Your task to perform on an android device: set the timer Image 0: 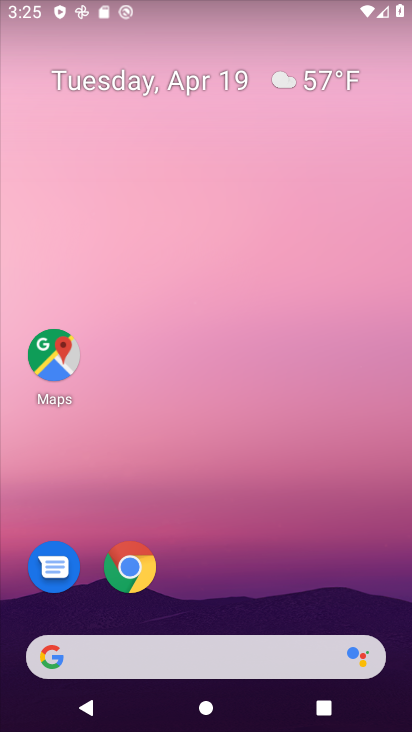
Step 0: drag from (381, 567) to (391, 151)
Your task to perform on an android device: set the timer Image 1: 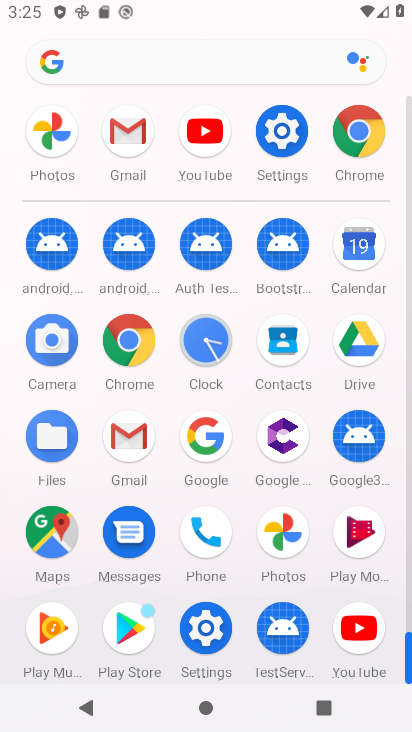
Step 1: click (204, 352)
Your task to perform on an android device: set the timer Image 2: 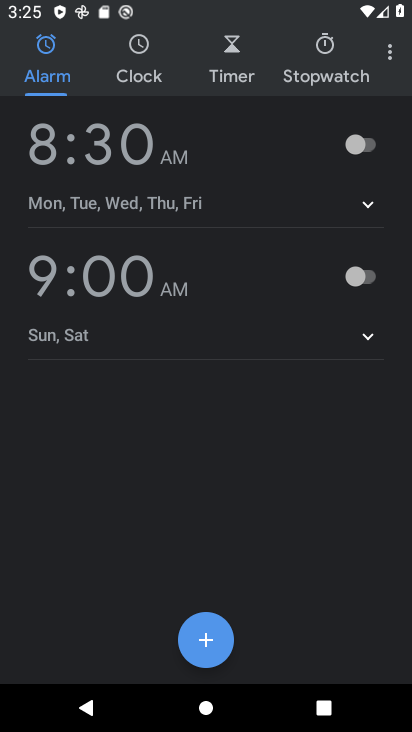
Step 2: click (224, 67)
Your task to perform on an android device: set the timer Image 3: 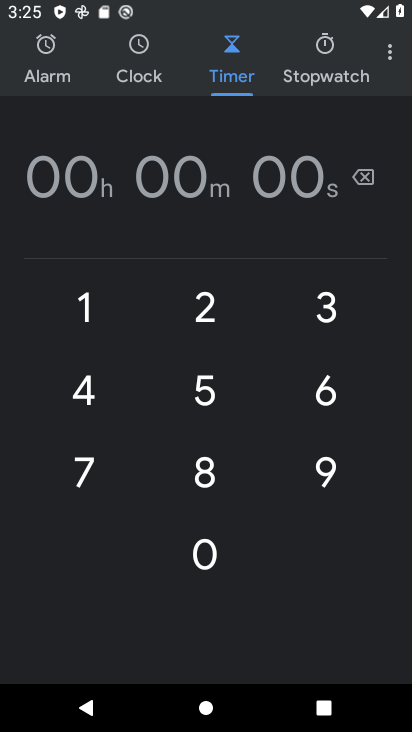
Step 3: click (197, 385)
Your task to perform on an android device: set the timer Image 4: 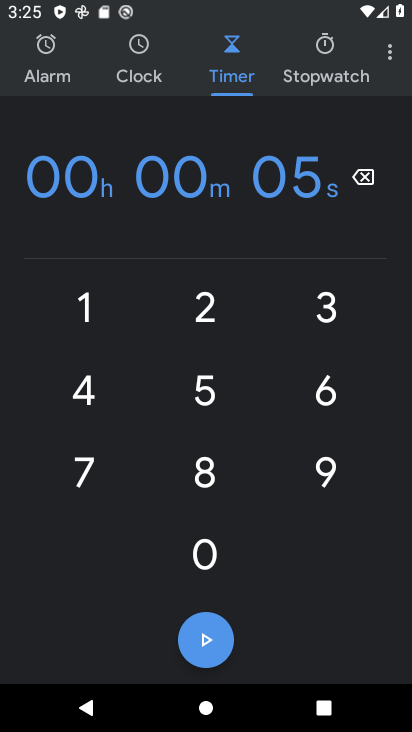
Step 4: click (222, 637)
Your task to perform on an android device: set the timer Image 5: 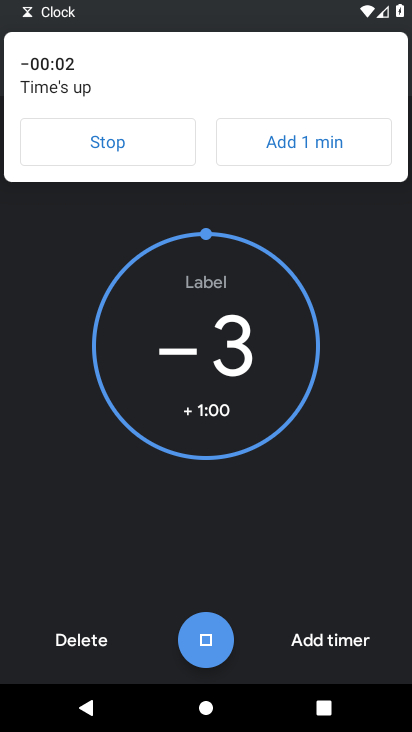
Step 5: task complete